Your task to perform on an android device: turn on showing notifications on the lock screen Image 0: 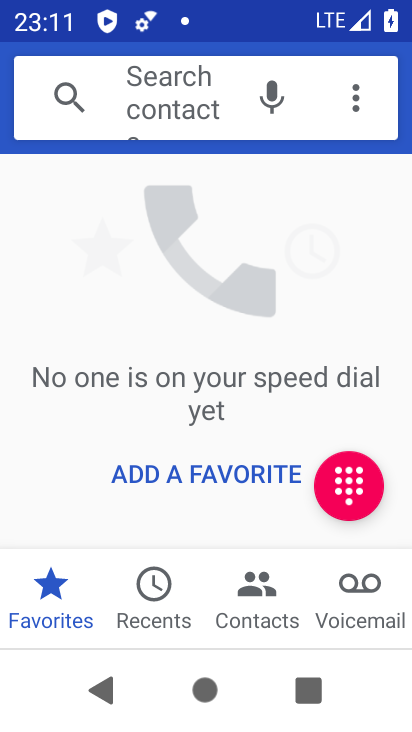
Step 0: press home button
Your task to perform on an android device: turn on showing notifications on the lock screen Image 1: 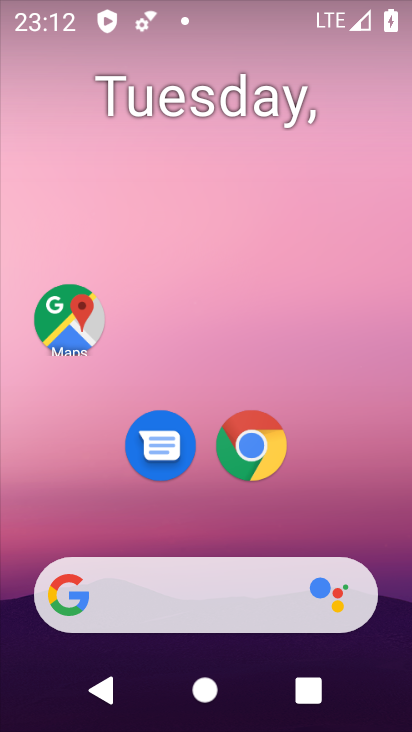
Step 1: drag from (197, 548) to (342, 47)
Your task to perform on an android device: turn on showing notifications on the lock screen Image 2: 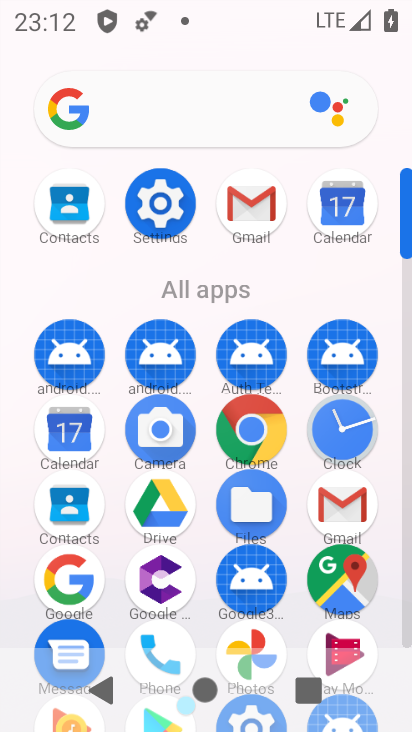
Step 2: click (161, 193)
Your task to perform on an android device: turn on showing notifications on the lock screen Image 3: 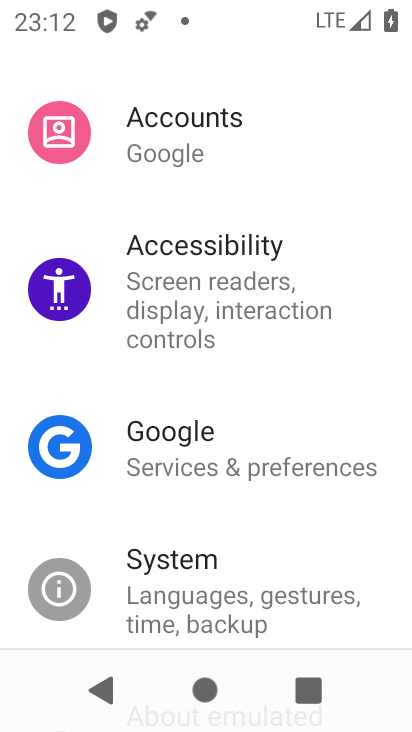
Step 3: drag from (247, 328) to (283, 569)
Your task to perform on an android device: turn on showing notifications on the lock screen Image 4: 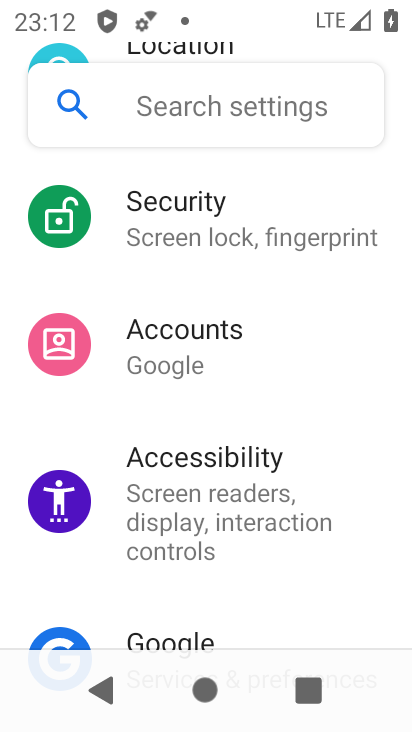
Step 4: drag from (297, 288) to (279, 543)
Your task to perform on an android device: turn on showing notifications on the lock screen Image 5: 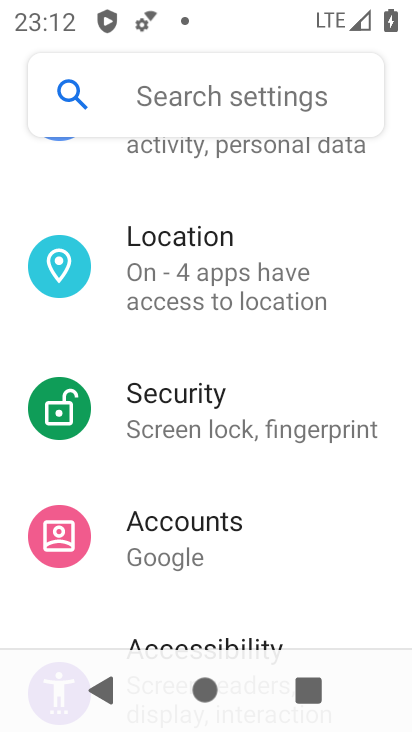
Step 5: drag from (294, 280) to (277, 492)
Your task to perform on an android device: turn on showing notifications on the lock screen Image 6: 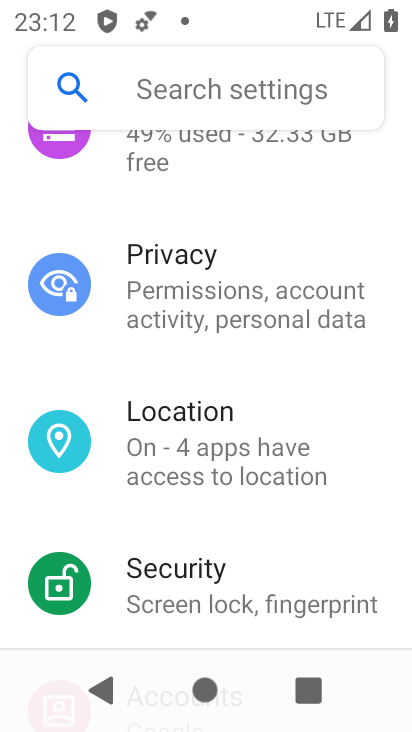
Step 6: drag from (271, 267) to (266, 508)
Your task to perform on an android device: turn on showing notifications on the lock screen Image 7: 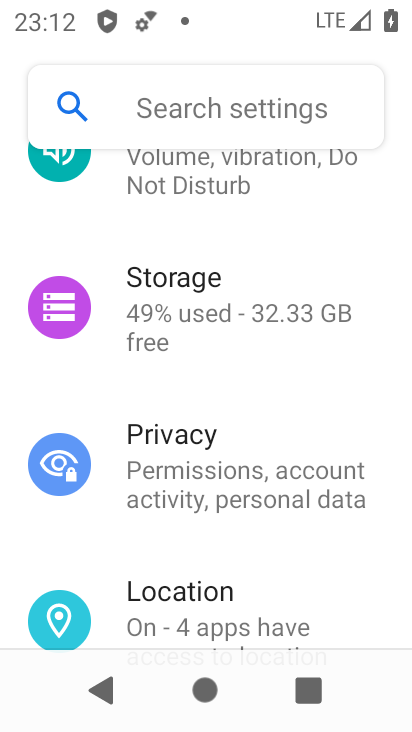
Step 7: drag from (263, 273) to (209, 476)
Your task to perform on an android device: turn on showing notifications on the lock screen Image 8: 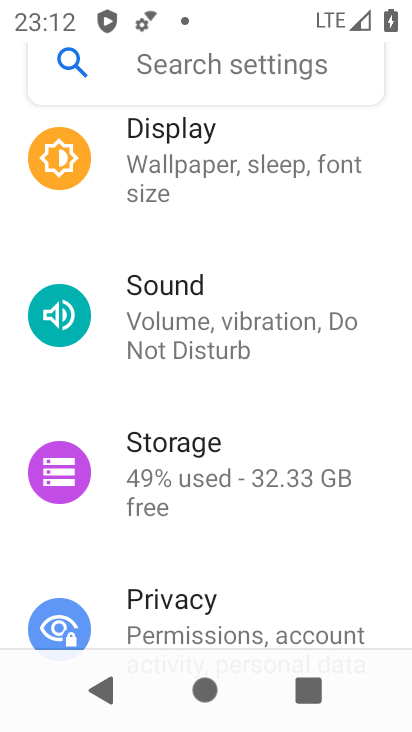
Step 8: drag from (211, 343) to (189, 510)
Your task to perform on an android device: turn on showing notifications on the lock screen Image 9: 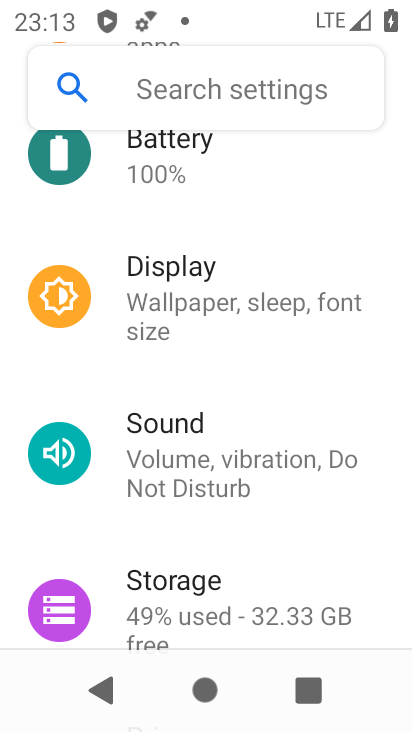
Step 9: drag from (246, 265) to (252, 552)
Your task to perform on an android device: turn on showing notifications on the lock screen Image 10: 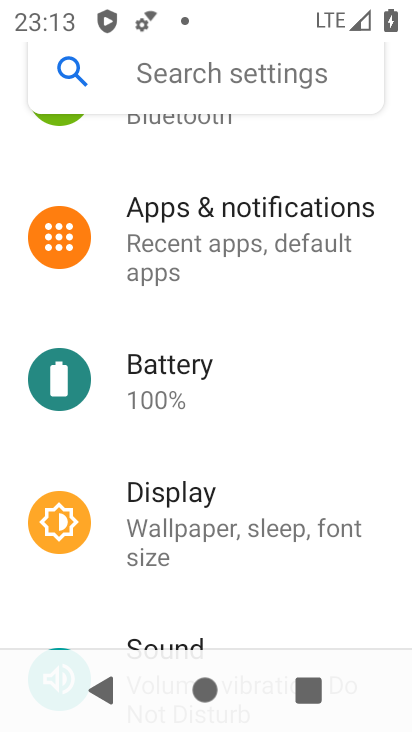
Step 10: click (289, 236)
Your task to perform on an android device: turn on showing notifications on the lock screen Image 11: 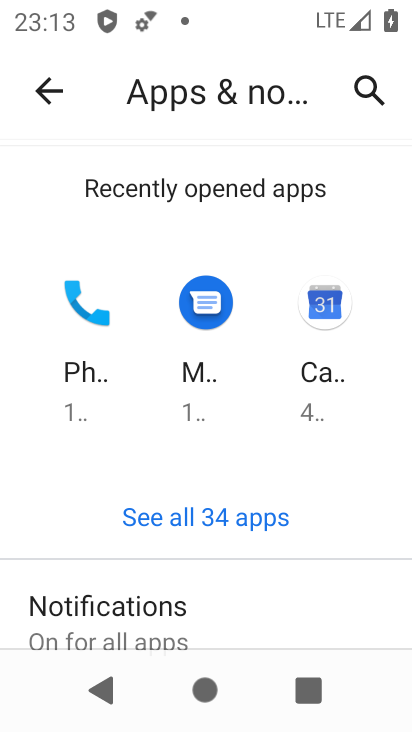
Step 11: drag from (149, 318) to (143, 164)
Your task to perform on an android device: turn on showing notifications on the lock screen Image 12: 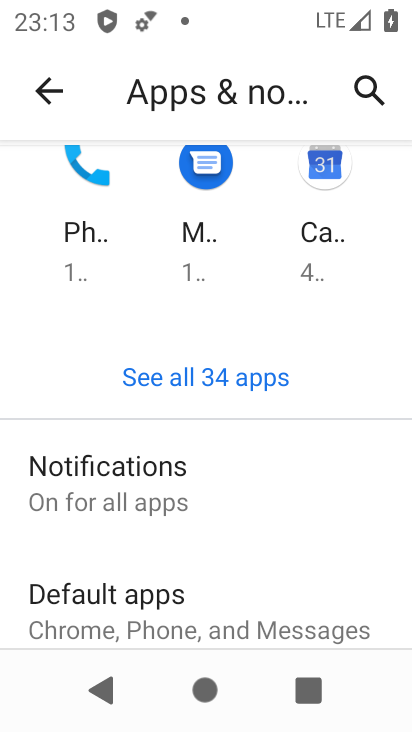
Step 12: click (93, 476)
Your task to perform on an android device: turn on showing notifications on the lock screen Image 13: 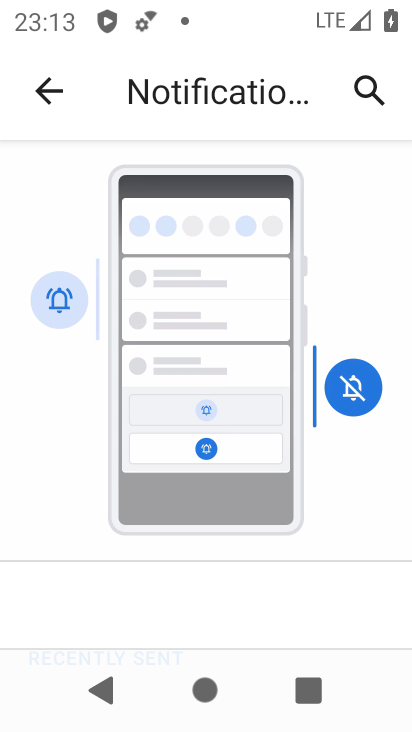
Step 13: drag from (148, 544) to (170, 272)
Your task to perform on an android device: turn on showing notifications on the lock screen Image 14: 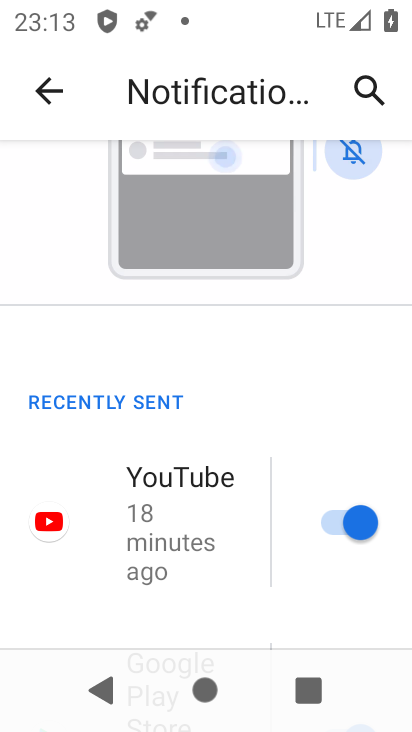
Step 14: drag from (186, 575) to (170, 319)
Your task to perform on an android device: turn on showing notifications on the lock screen Image 15: 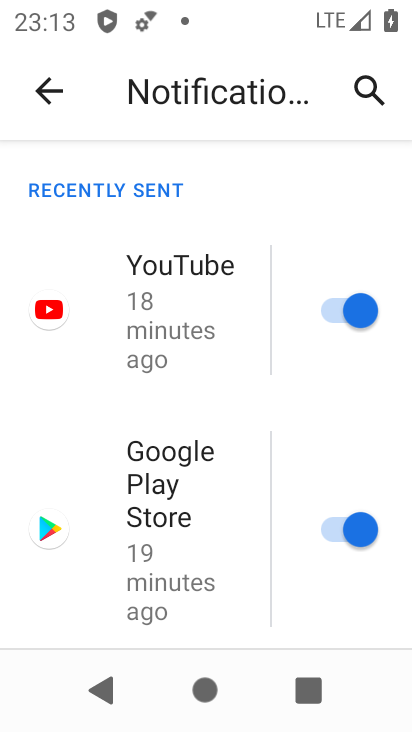
Step 15: drag from (187, 594) to (183, 272)
Your task to perform on an android device: turn on showing notifications on the lock screen Image 16: 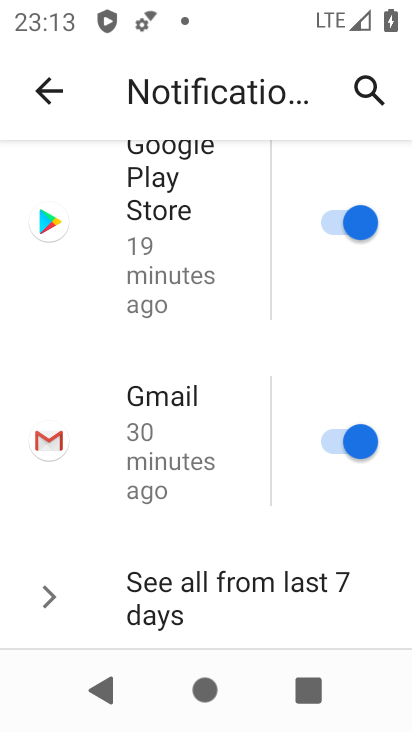
Step 16: drag from (215, 581) to (188, 309)
Your task to perform on an android device: turn on showing notifications on the lock screen Image 17: 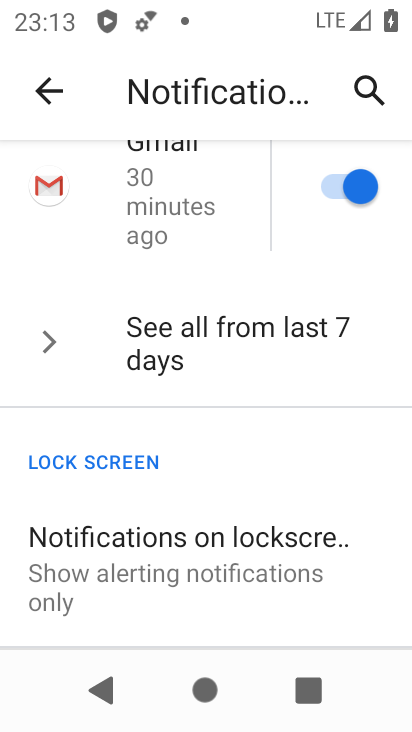
Step 17: click (255, 562)
Your task to perform on an android device: turn on showing notifications on the lock screen Image 18: 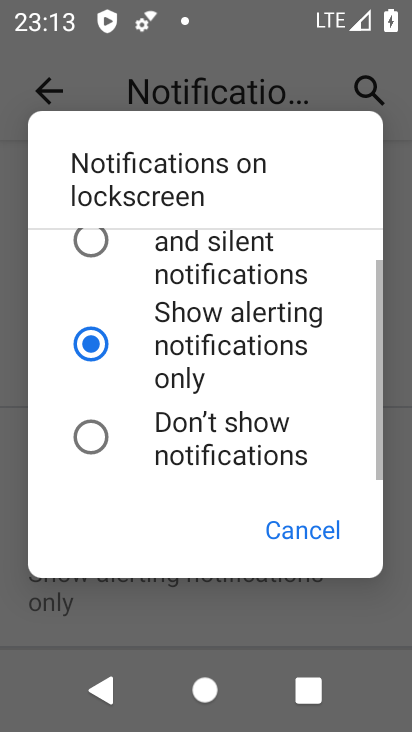
Step 18: click (241, 262)
Your task to perform on an android device: turn on showing notifications on the lock screen Image 19: 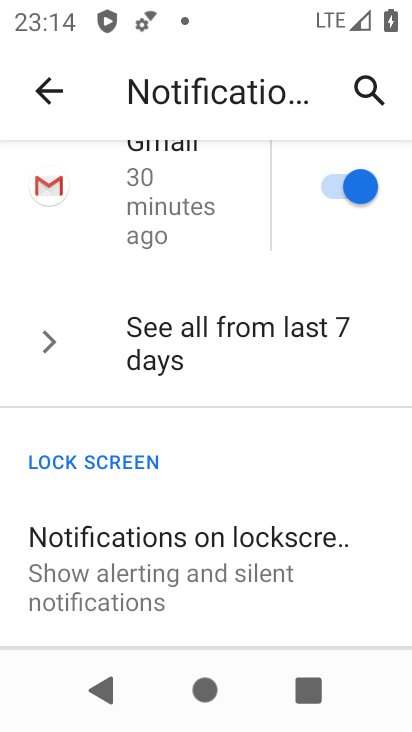
Step 19: task complete